Your task to perform on an android device: install app "Booking.com: Hotels and more" Image 0: 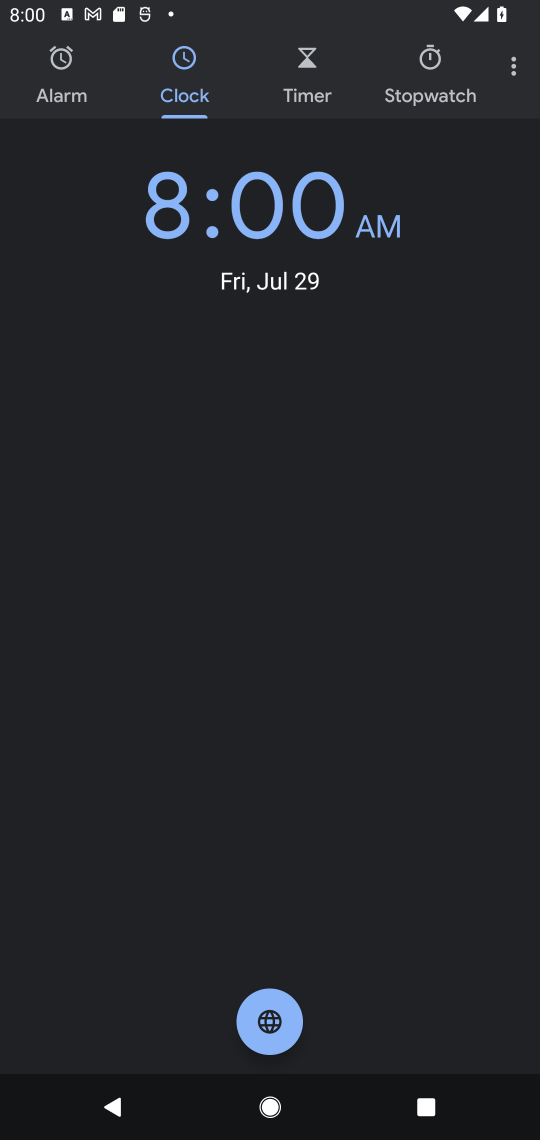
Step 0: press back button
Your task to perform on an android device: install app "Booking.com: Hotels and more" Image 1: 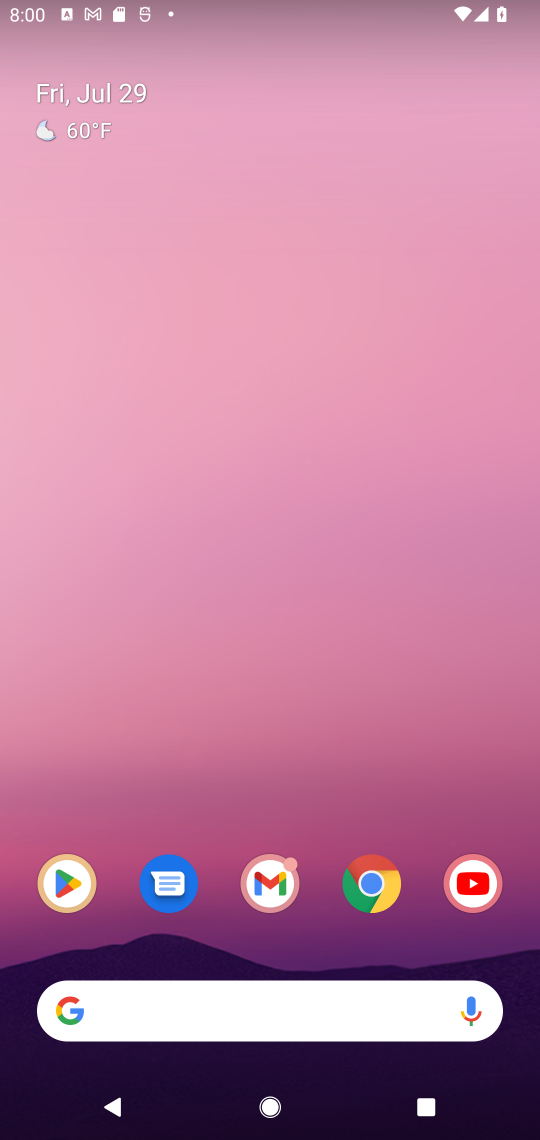
Step 1: click (74, 888)
Your task to perform on an android device: install app "Booking.com: Hotels and more" Image 2: 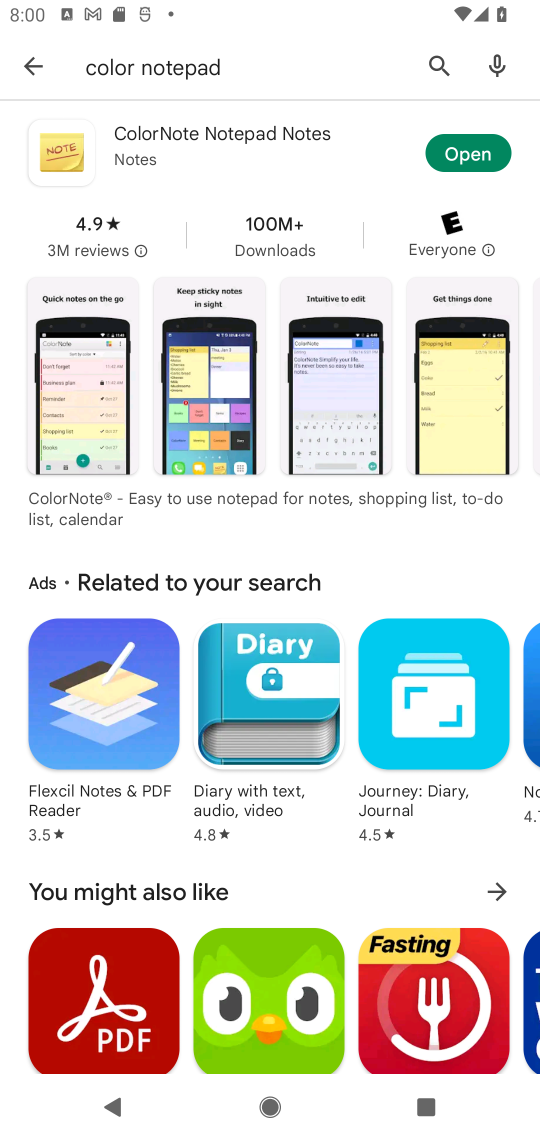
Step 2: click (443, 70)
Your task to perform on an android device: install app "Booking.com: Hotels and more" Image 3: 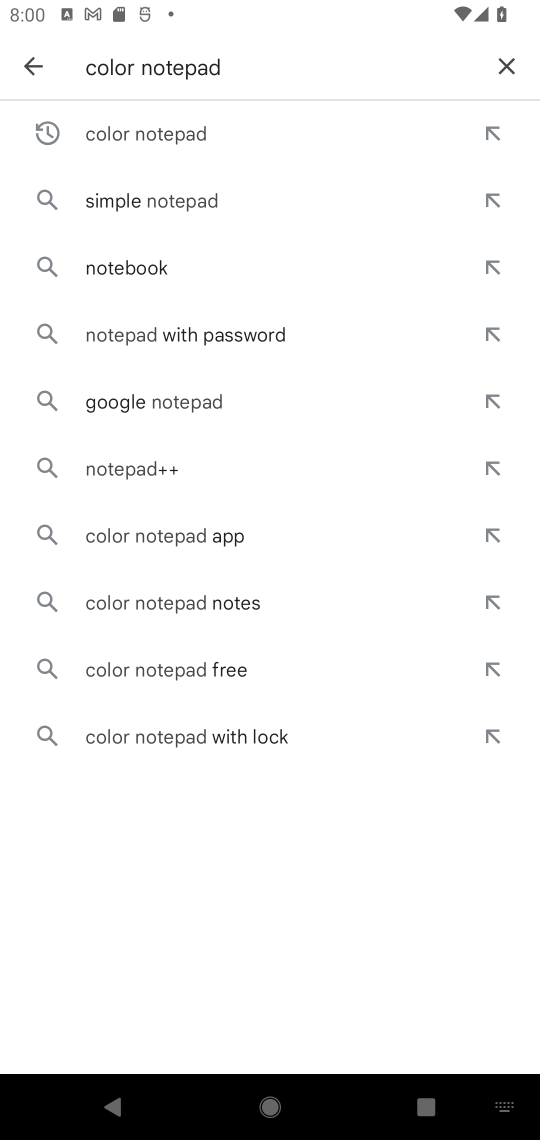
Step 3: click (494, 59)
Your task to perform on an android device: install app "Booking.com: Hotels and more" Image 4: 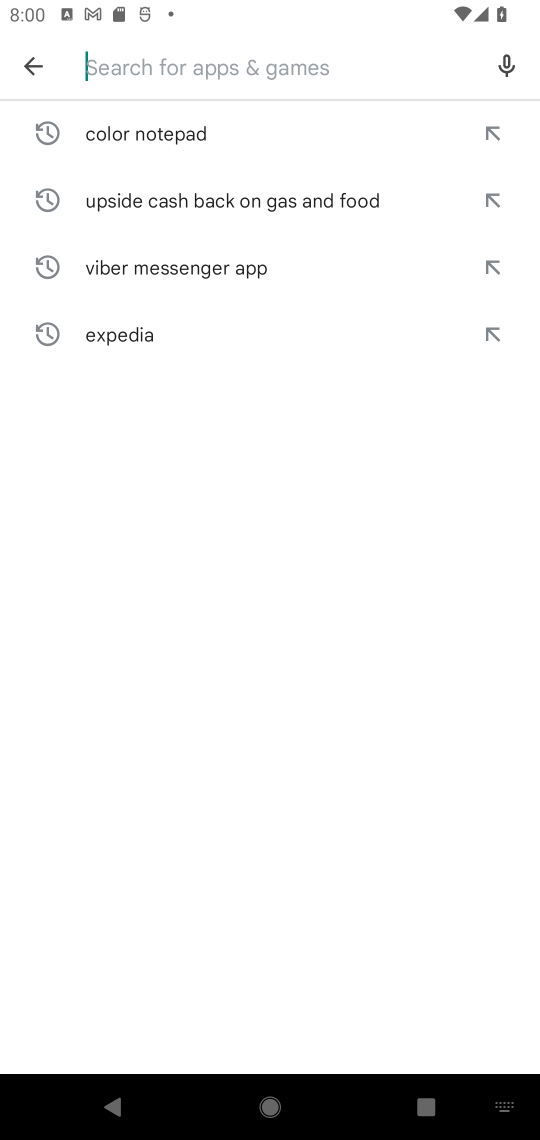
Step 4: click (161, 81)
Your task to perform on an android device: install app "Booking.com: Hotels and more" Image 5: 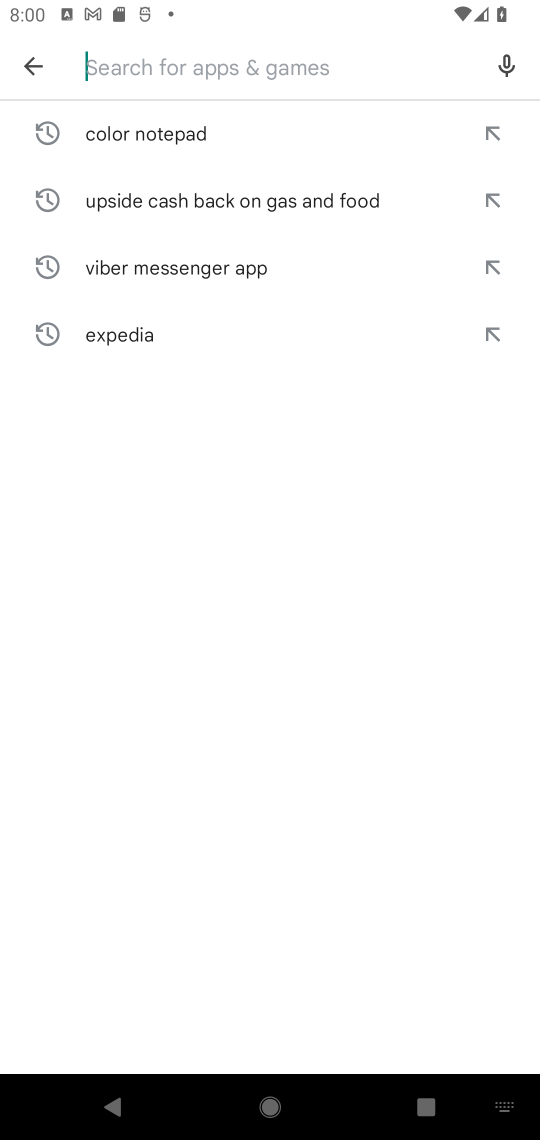
Step 5: type "booking.com"
Your task to perform on an android device: install app "Booking.com: Hotels and more" Image 6: 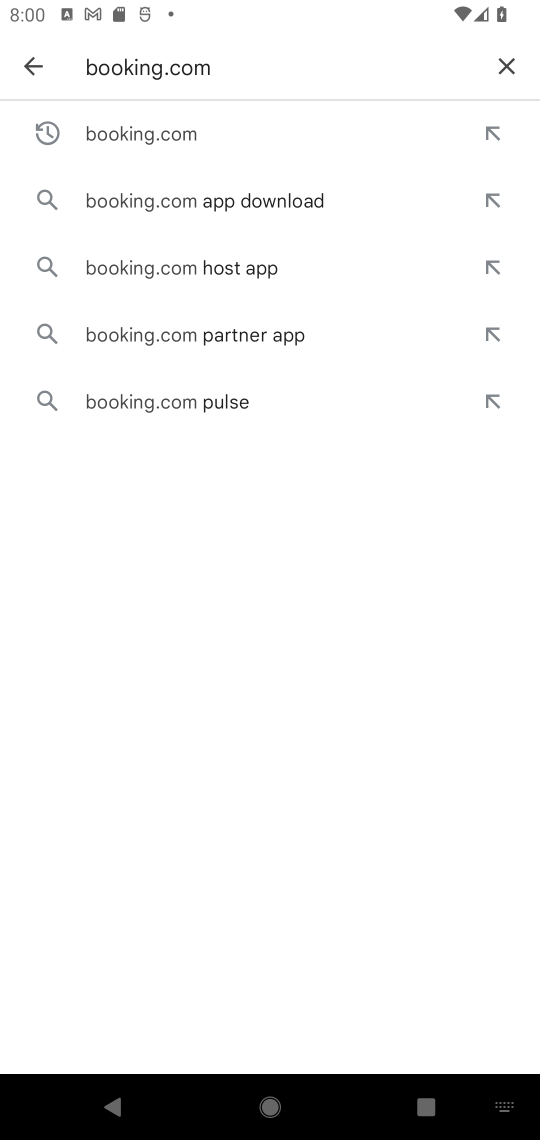
Step 6: click (133, 140)
Your task to perform on an android device: install app "Booking.com: Hotels and more" Image 7: 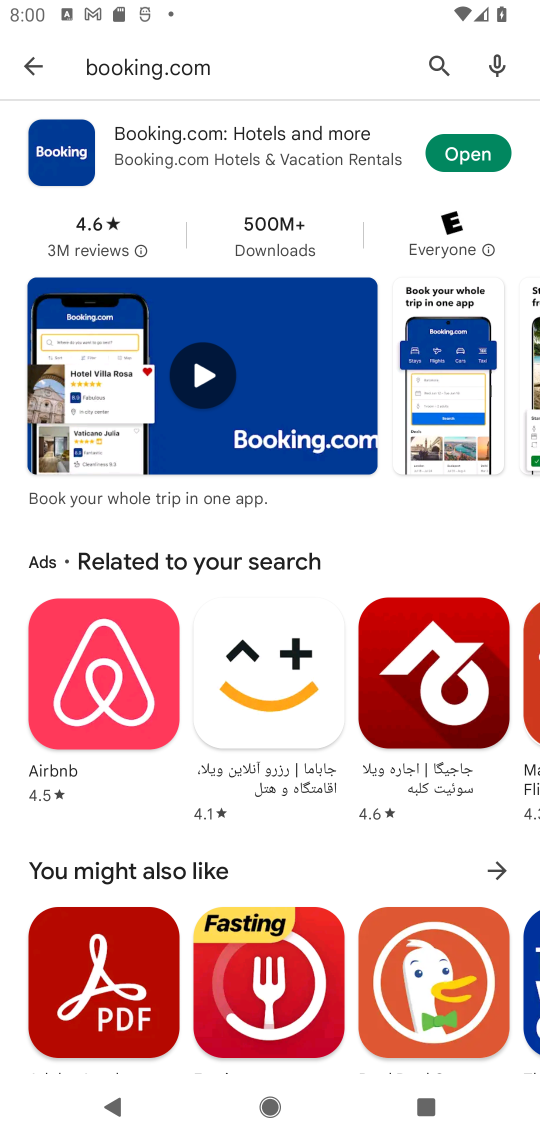
Step 7: click (479, 160)
Your task to perform on an android device: install app "Booking.com: Hotels and more" Image 8: 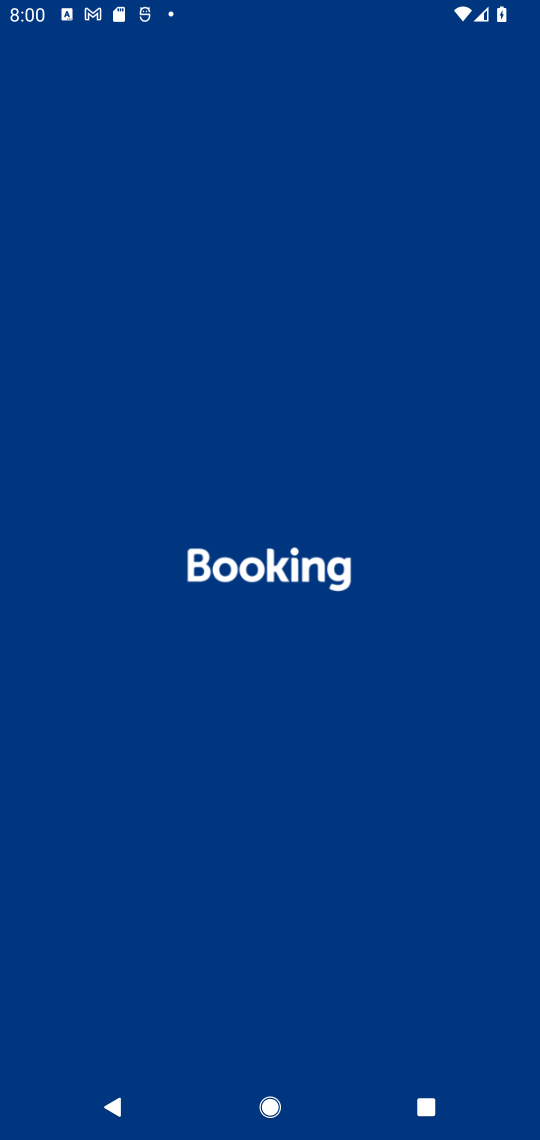
Step 8: task complete